Your task to perform on an android device: Go to CNN.com Image 0: 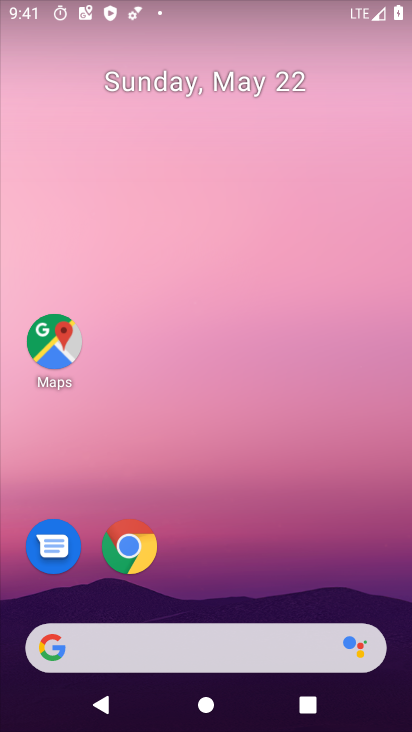
Step 0: click (259, 164)
Your task to perform on an android device: Go to CNN.com Image 1: 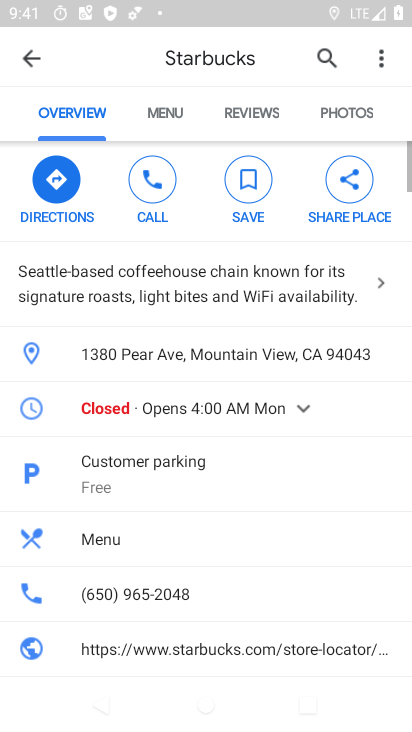
Step 1: press home button
Your task to perform on an android device: Go to CNN.com Image 2: 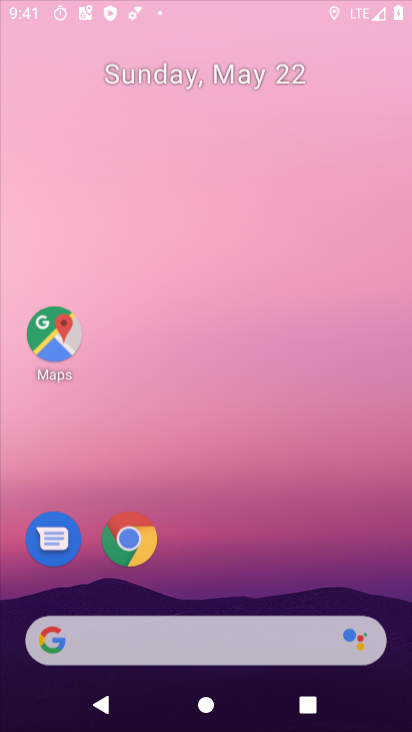
Step 2: drag from (133, 584) to (262, 49)
Your task to perform on an android device: Go to CNN.com Image 3: 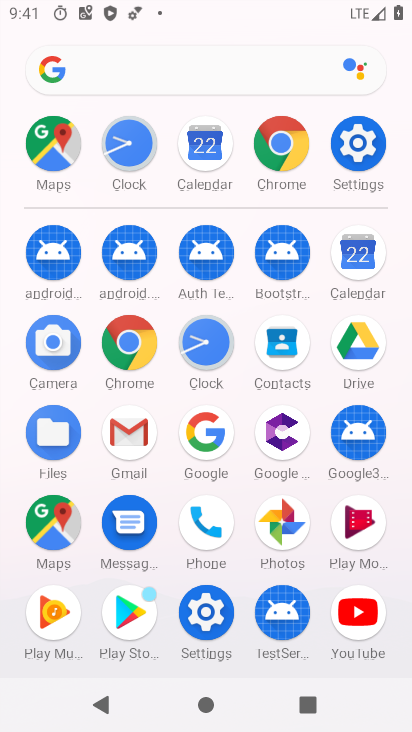
Step 3: click (158, 72)
Your task to perform on an android device: Go to CNN.com Image 4: 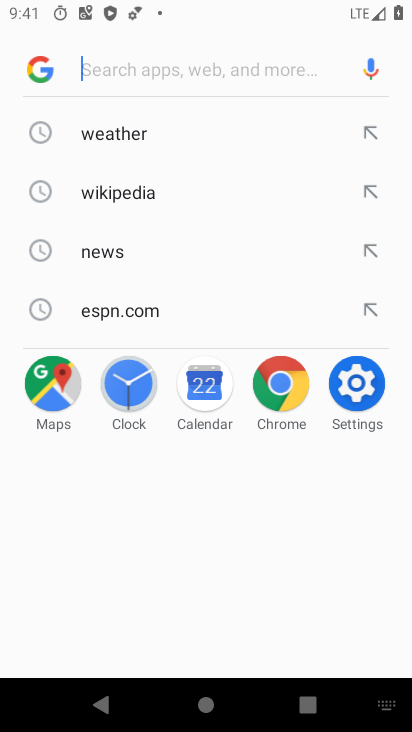
Step 4: type "cnn.com"
Your task to perform on an android device: Go to CNN.com Image 5: 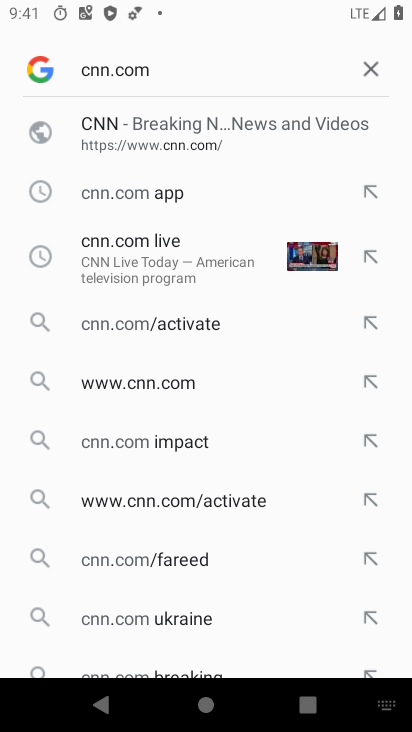
Step 5: click (141, 128)
Your task to perform on an android device: Go to CNN.com Image 6: 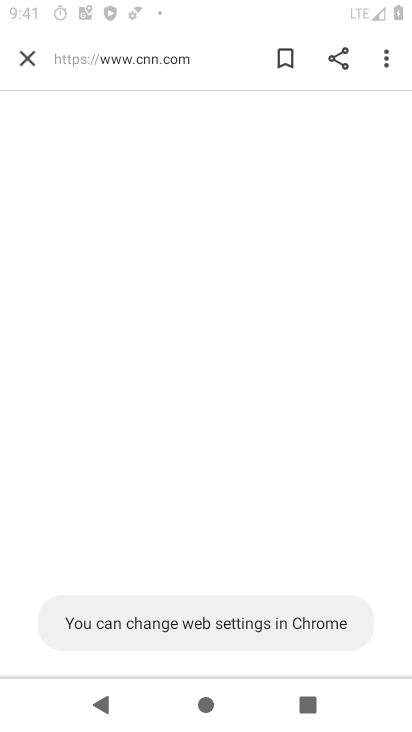
Step 6: task complete